Your task to perform on an android device: What's the weather? Image 0: 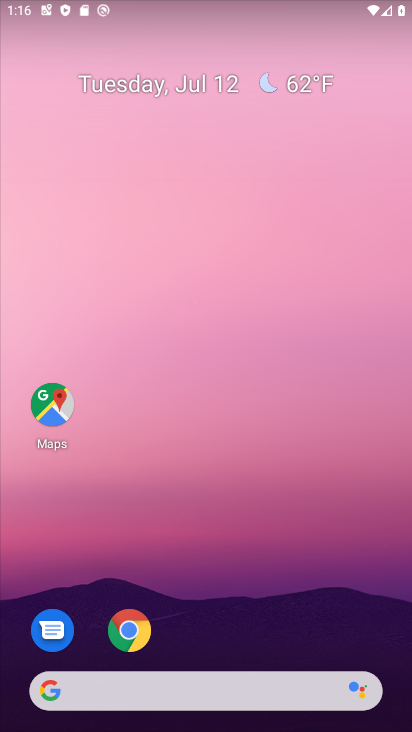
Step 0: press home button
Your task to perform on an android device: What's the weather? Image 1: 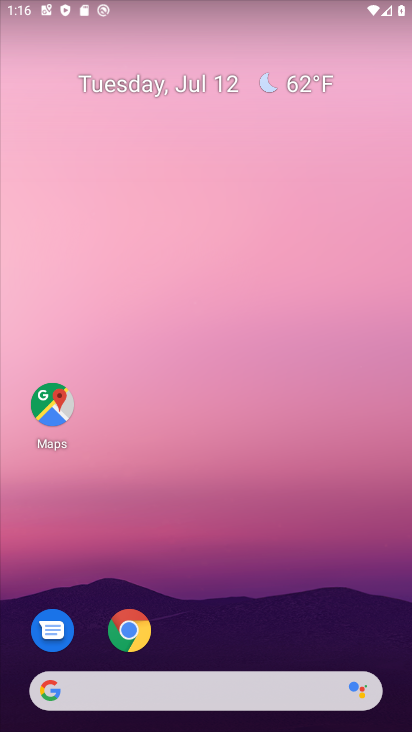
Step 1: drag from (201, 649) to (208, 43)
Your task to perform on an android device: What's the weather? Image 2: 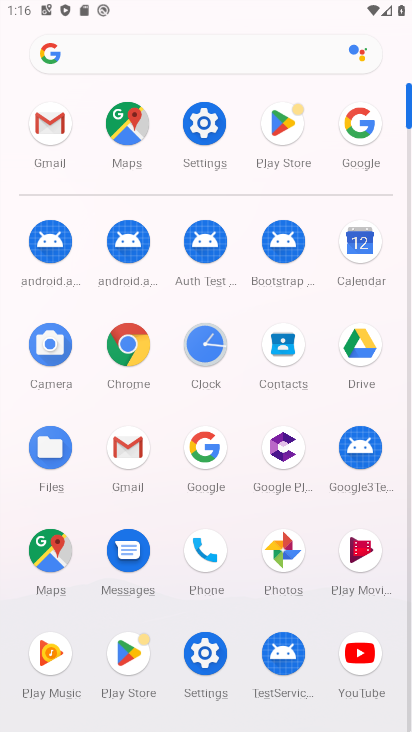
Step 2: click (359, 127)
Your task to perform on an android device: What's the weather? Image 3: 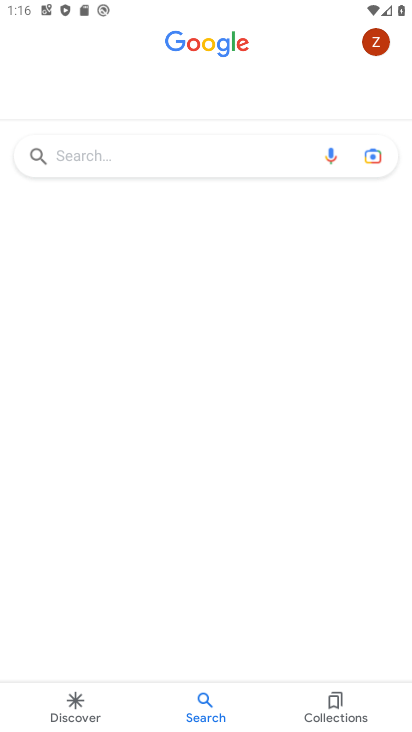
Step 3: click (158, 156)
Your task to perform on an android device: What's the weather? Image 4: 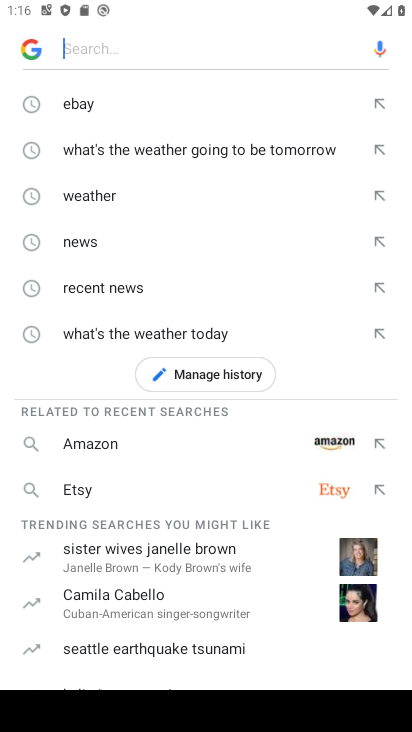
Step 4: click (89, 199)
Your task to perform on an android device: What's the weather? Image 5: 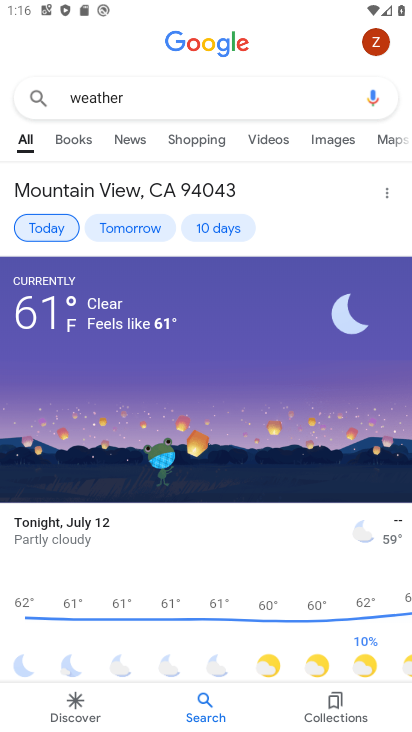
Step 5: task complete